Your task to perform on an android device: turn off location history Image 0: 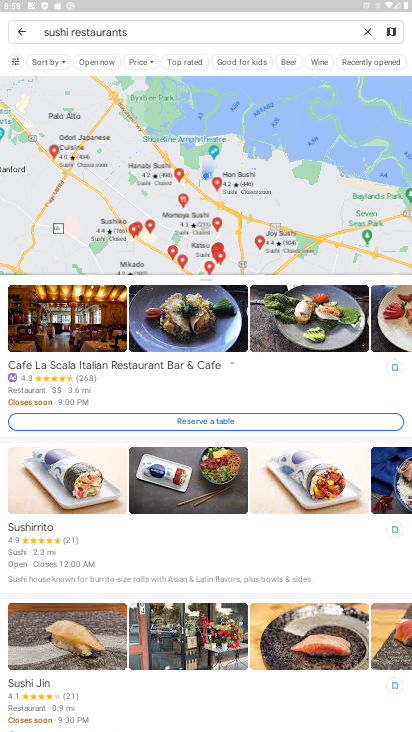
Step 0: press home button
Your task to perform on an android device: turn off location history Image 1: 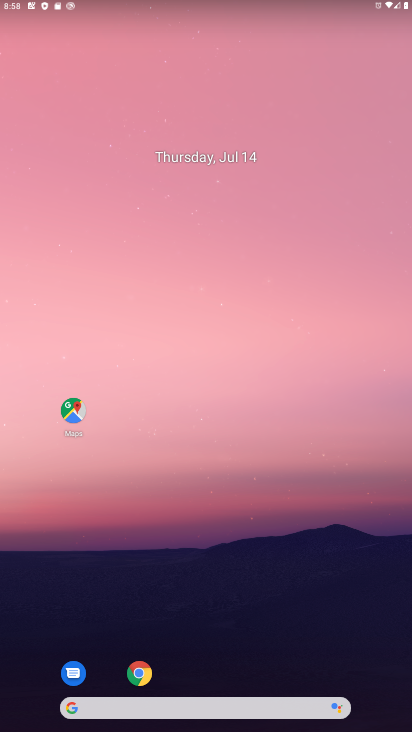
Step 1: drag from (213, 709) to (209, 370)
Your task to perform on an android device: turn off location history Image 2: 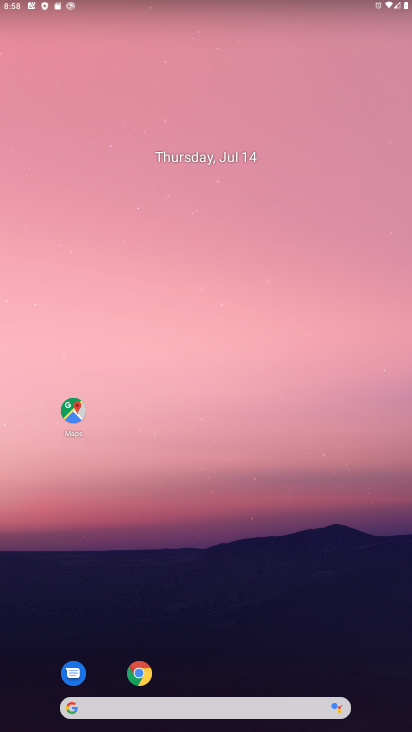
Step 2: drag from (228, 702) to (238, 54)
Your task to perform on an android device: turn off location history Image 3: 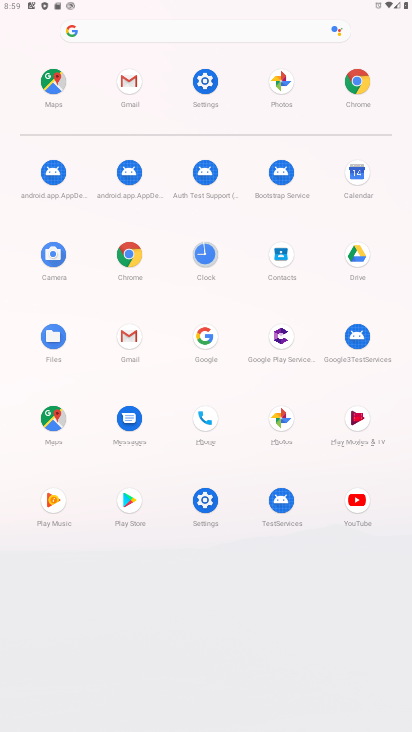
Step 3: click (205, 81)
Your task to perform on an android device: turn off location history Image 4: 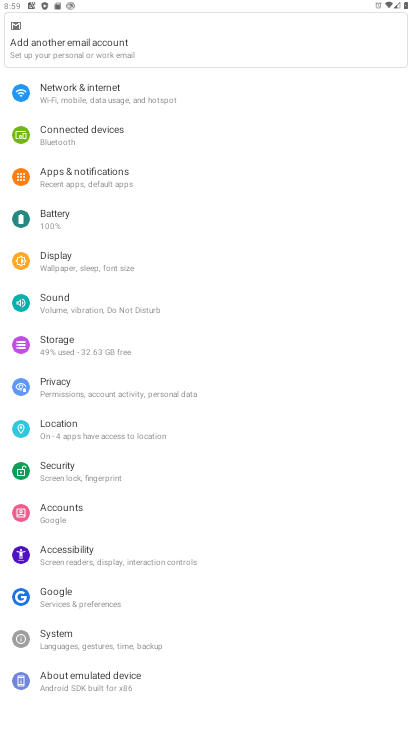
Step 4: click (65, 433)
Your task to perform on an android device: turn off location history Image 5: 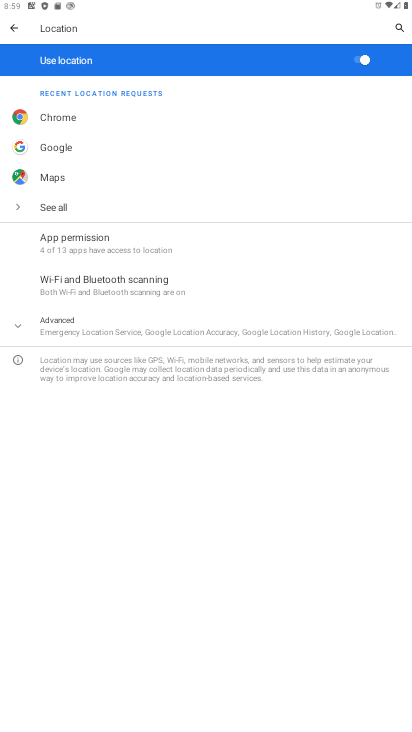
Step 5: click (104, 332)
Your task to perform on an android device: turn off location history Image 6: 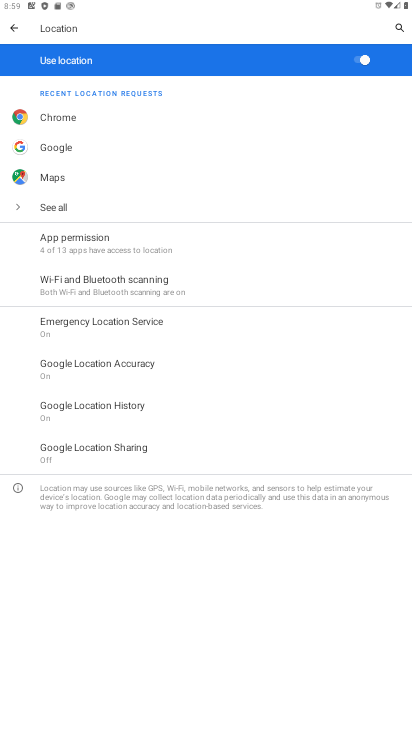
Step 6: click (100, 404)
Your task to perform on an android device: turn off location history Image 7: 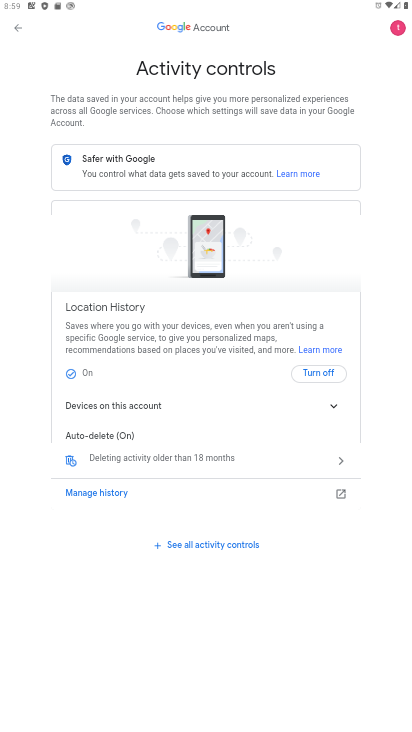
Step 7: click (319, 376)
Your task to perform on an android device: turn off location history Image 8: 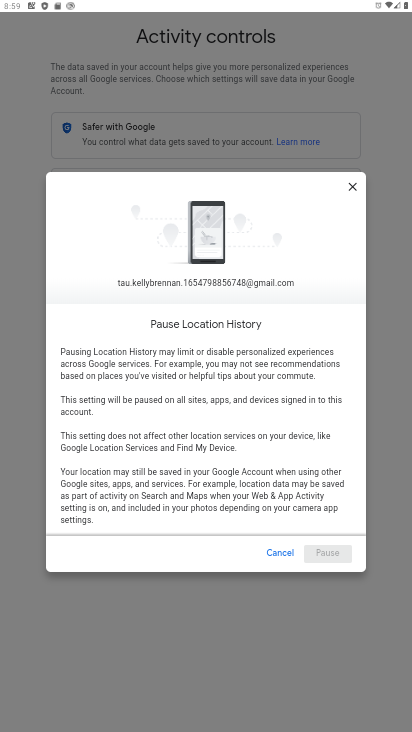
Step 8: drag from (240, 463) to (305, 288)
Your task to perform on an android device: turn off location history Image 9: 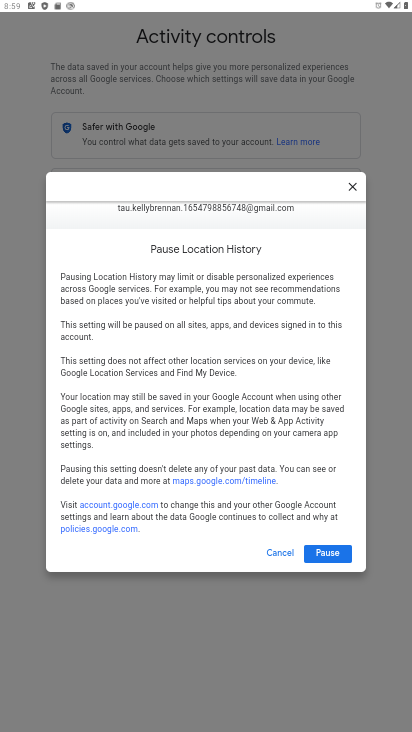
Step 9: click (328, 554)
Your task to perform on an android device: turn off location history Image 10: 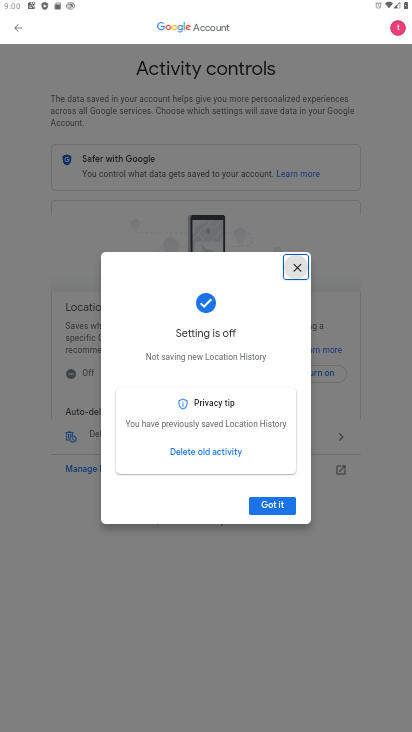
Step 10: click (269, 509)
Your task to perform on an android device: turn off location history Image 11: 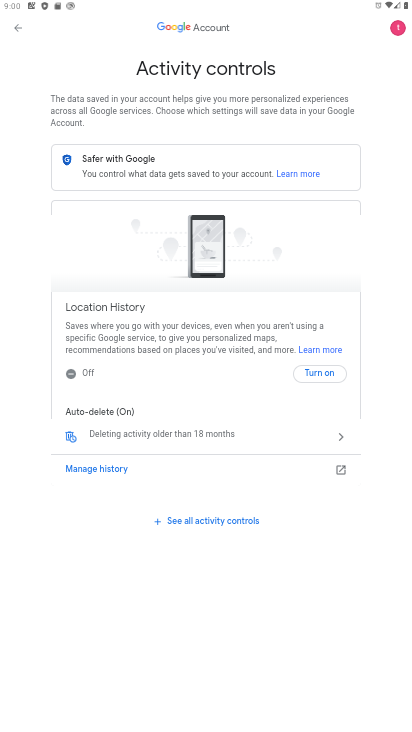
Step 11: task complete